Your task to perform on an android device: Open Google Chrome and click the shortcut for Amazon.com Image 0: 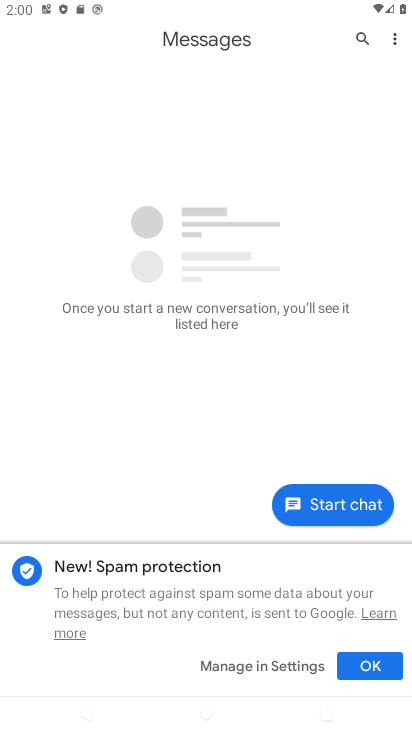
Step 0: press home button
Your task to perform on an android device: Open Google Chrome and click the shortcut for Amazon.com Image 1: 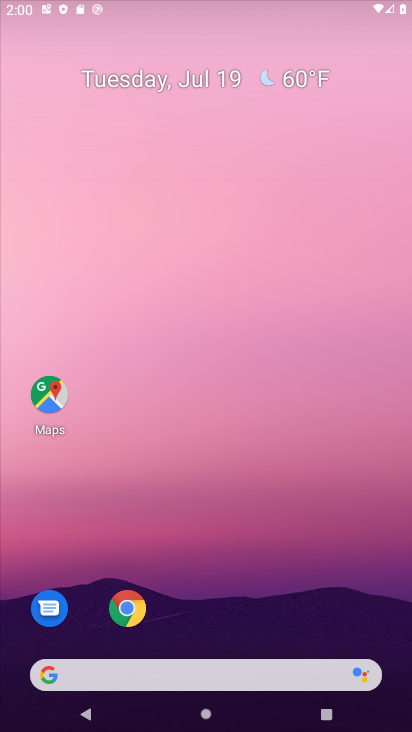
Step 1: drag from (211, 573) to (244, 18)
Your task to perform on an android device: Open Google Chrome and click the shortcut for Amazon.com Image 2: 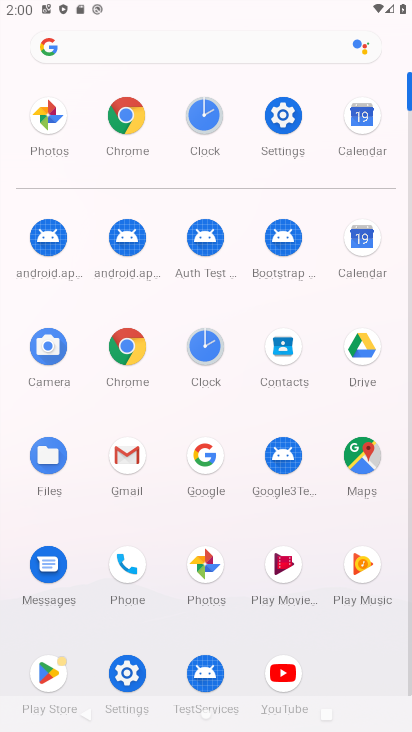
Step 2: click (135, 120)
Your task to perform on an android device: Open Google Chrome and click the shortcut for Amazon.com Image 3: 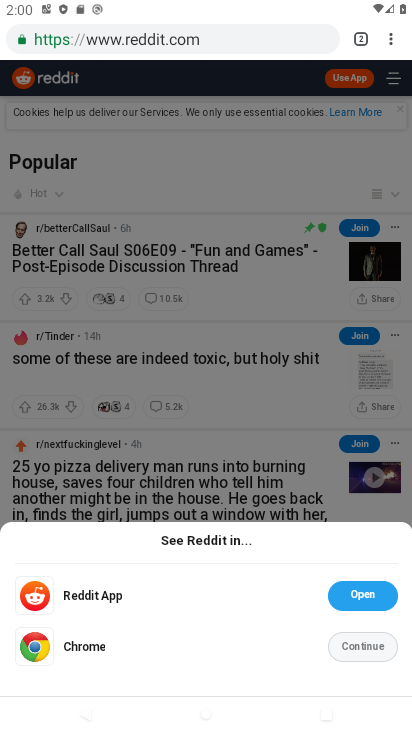
Step 3: press back button
Your task to perform on an android device: Open Google Chrome and click the shortcut for Amazon.com Image 4: 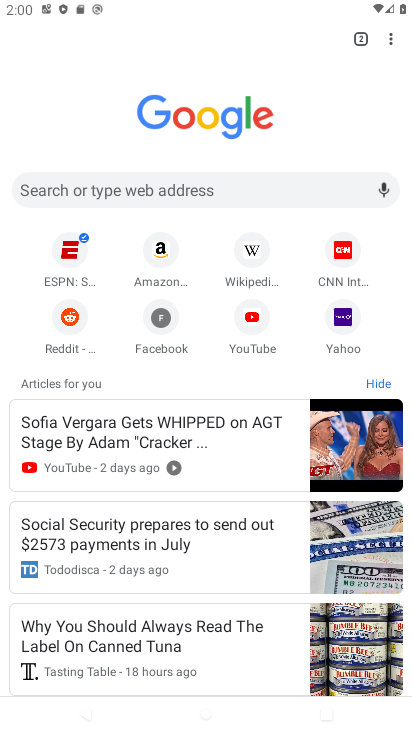
Step 4: click (165, 253)
Your task to perform on an android device: Open Google Chrome and click the shortcut for Amazon.com Image 5: 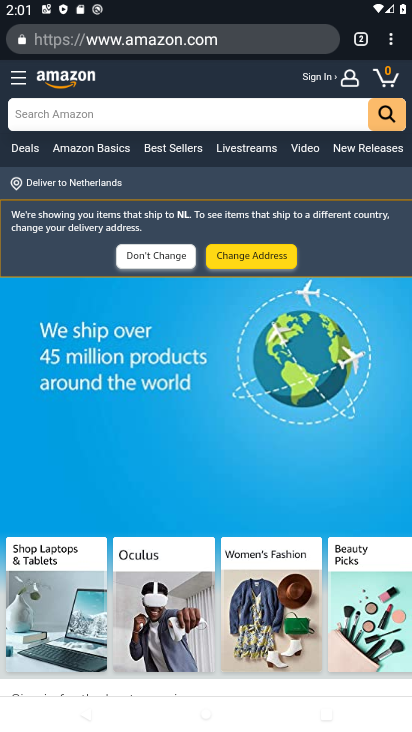
Step 5: drag from (226, 674) to (177, 231)
Your task to perform on an android device: Open Google Chrome and click the shortcut for Amazon.com Image 6: 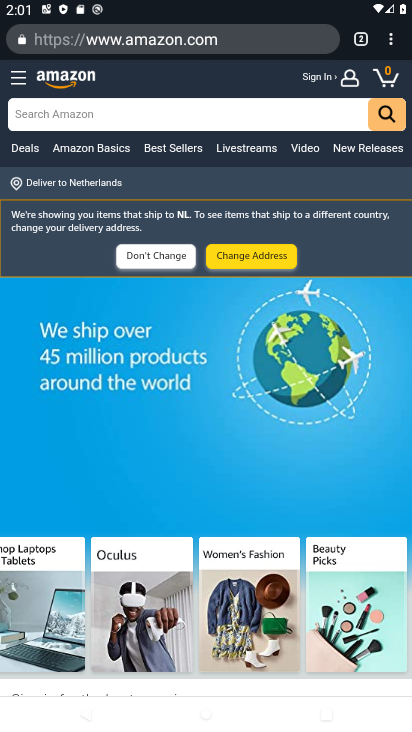
Step 6: drag from (398, 37) to (346, 398)
Your task to perform on an android device: Open Google Chrome and click the shortcut for Amazon.com Image 7: 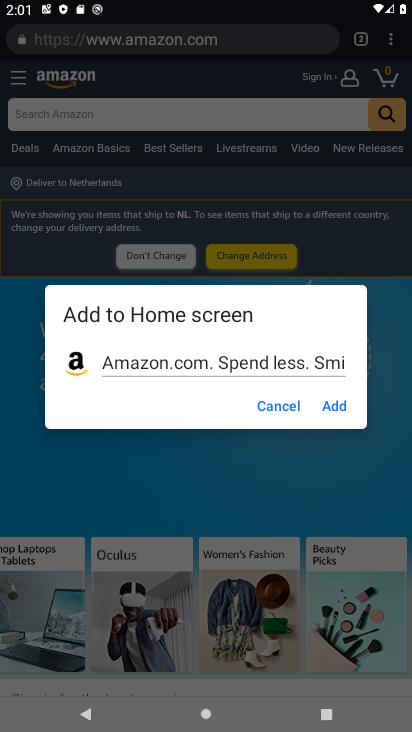
Step 7: click (346, 412)
Your task to perform on an android device: Open Google Chrome and click the shortcut for Amazon.com Image 8: 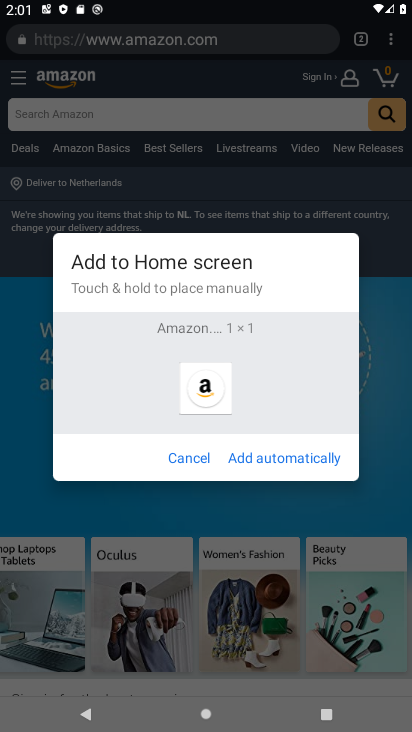
Step 8: click (304, 458)
Your task to perform on an android device: Open Google Chrome and click the shortcut for Amazon.com Image 9: 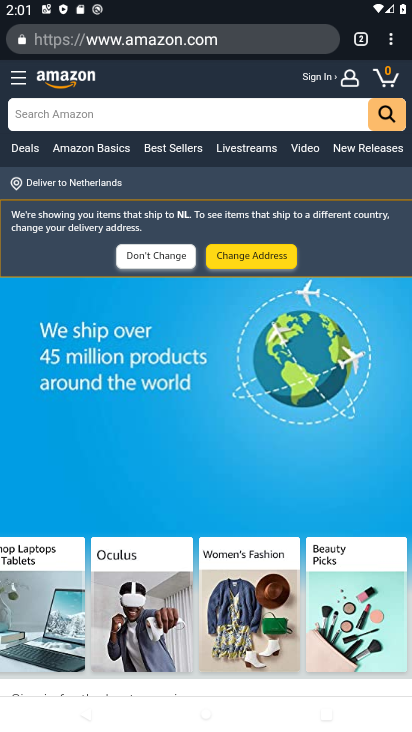
Step 9: task complete